Your task to perform on an android device: Open internet settings Image 0: 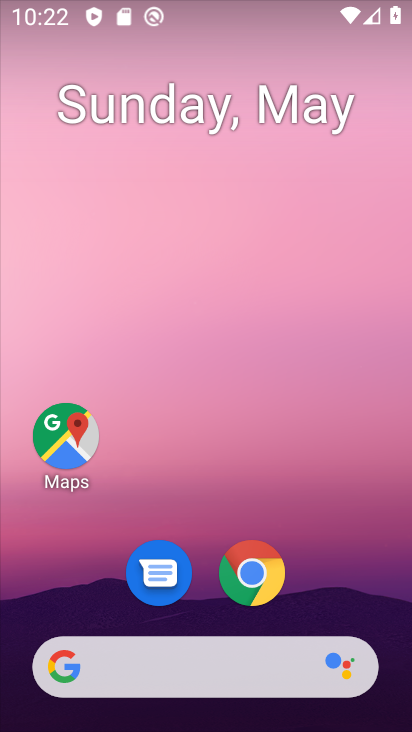
Step 0: drag from (182, 566) to (228, 264)
Your task to perform on an android device: Open internet settings Image 1: 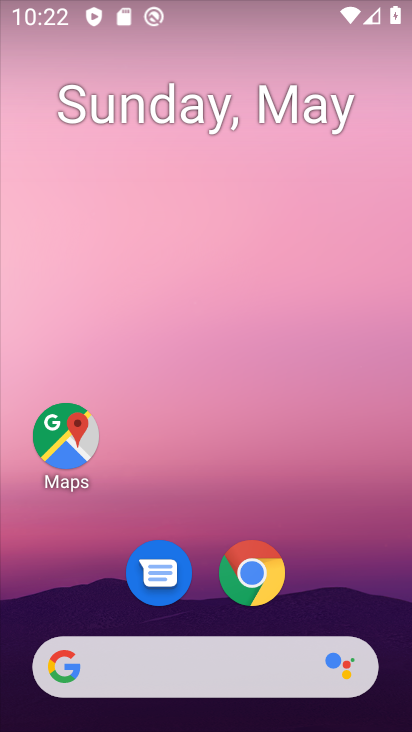
Step 1: drag from (186, 625) to (292, 148)
Your task to perform on an android device: Open internet settings Image 2: 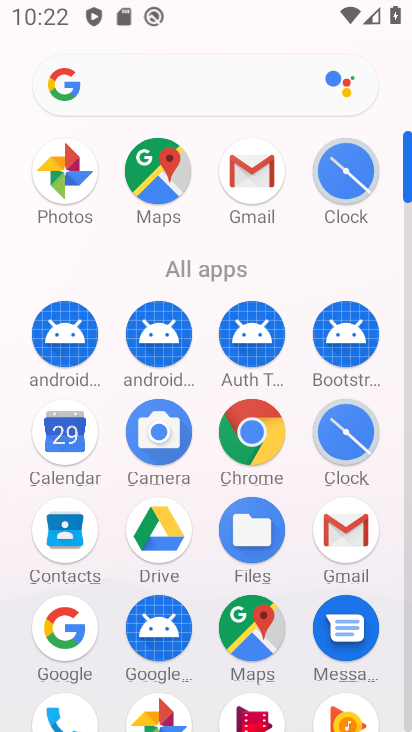
Step 2: drag from (197, 612) to (225, 279)
Your task to perform on an android device: Open internet settings Image 3: 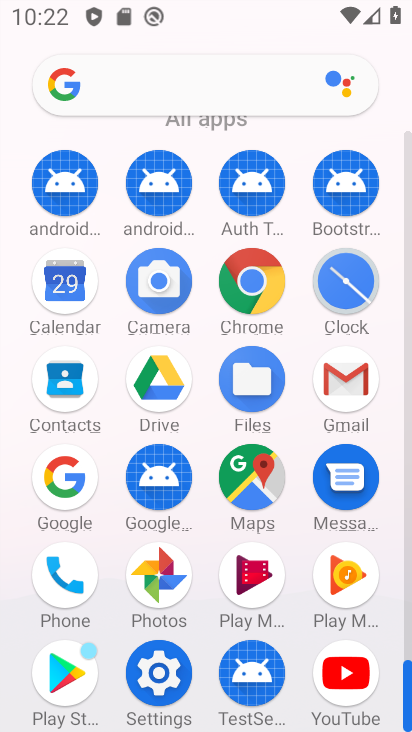
Step 3: click (152, 678)
Your task to perform on an android device: Open internet settings Image 4: 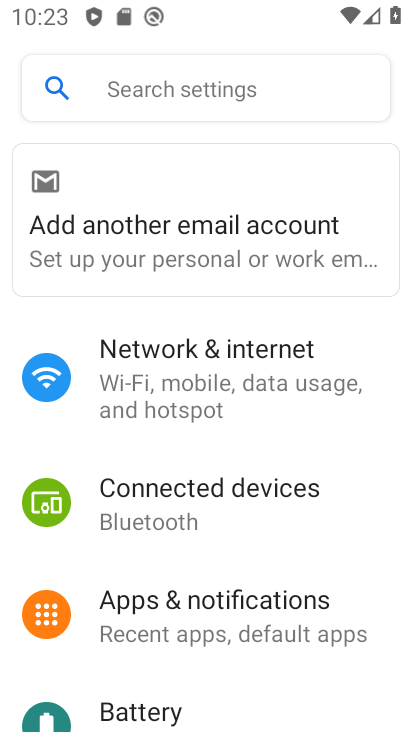
Step 4: click (306, 367)
Your task to perform on an android device: Open internet settings Image 5: 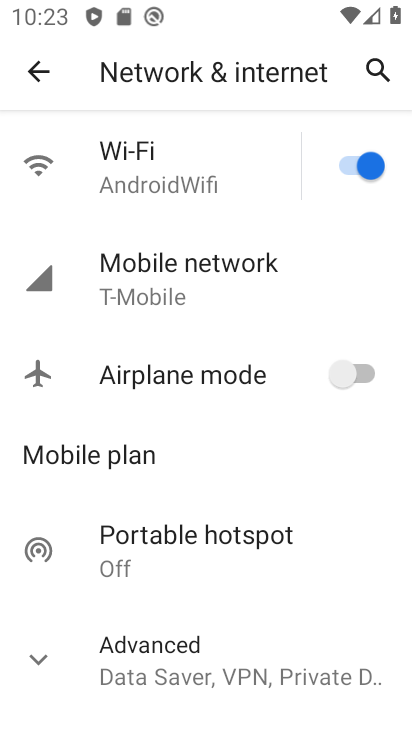
Step 5: task complete